Your task to perform on an android device: add a label to a message in the gmail app Image 0: 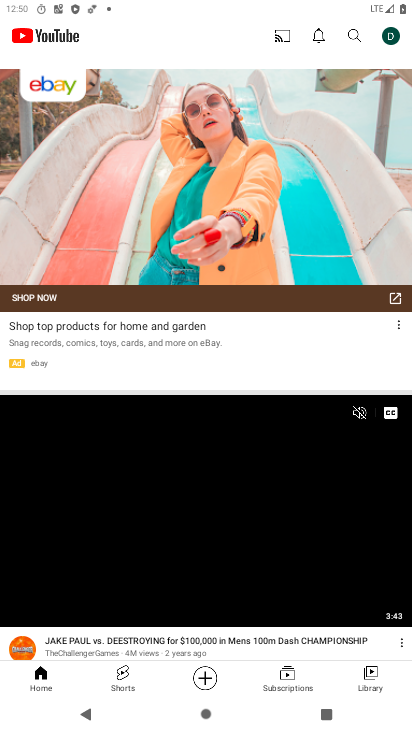
Step 0: press home button
Your task to perform on an android device: add a label to a message in the gmail app Image 1: 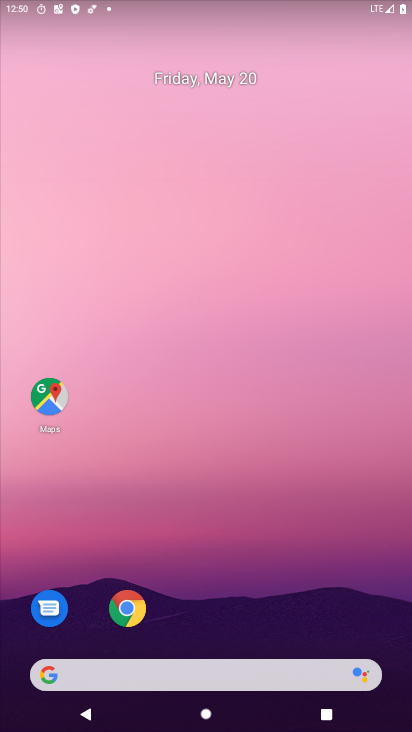
Step 1: drag from (366, 629) to (351, 68)
Your task to perform on an android device: add a label to a message in the gmail app Image 2: 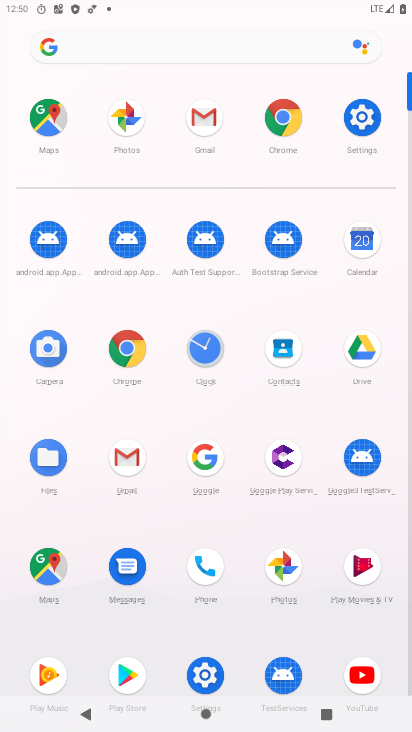
Step 2: click (134, 479)
Your task to perform on an android device: add a label to a message in the gmail app Image 3: 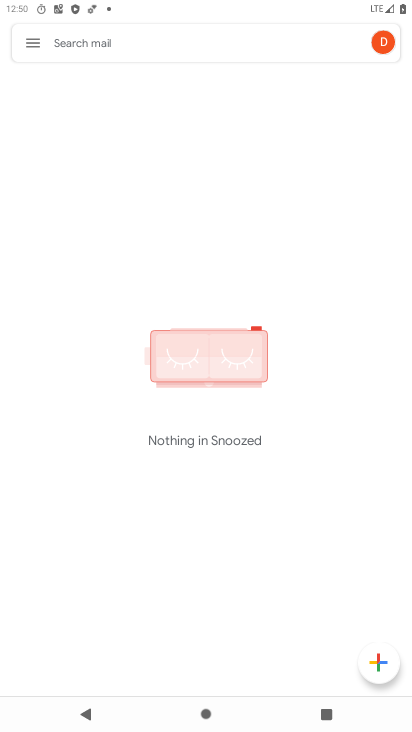
Step 3: task complete